Your task to perform on an android device: Show me productivity apps on the Play Store Image 0: 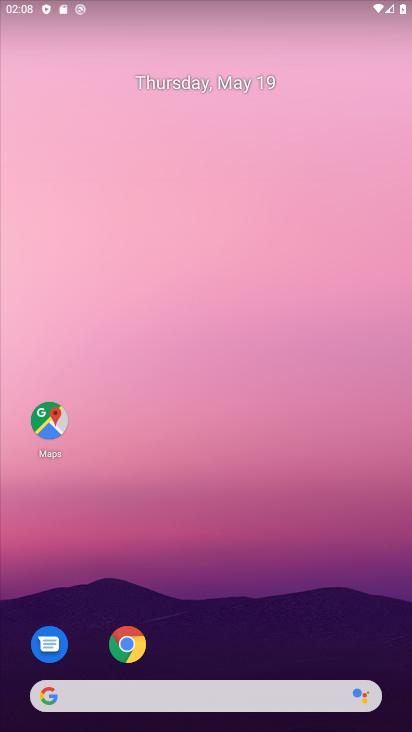
Step 0: click (263, 292)
Your task to perform on an android device: Show me productivity apps on the Play Store Image 1: 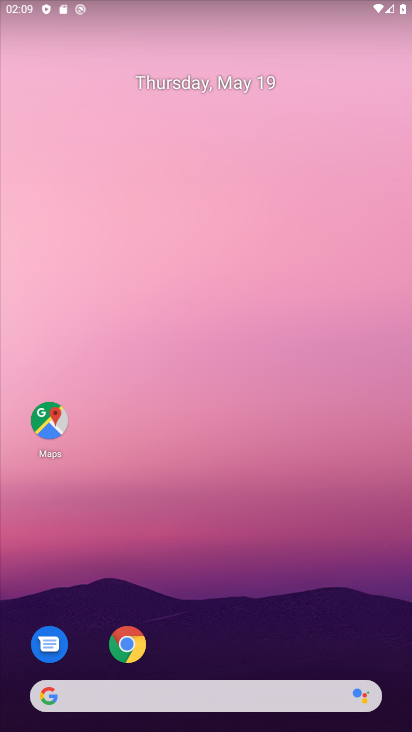
Step 1: drag from (254, 636) to (260, 291)
Your task to perform on an android device: Show me productivity apps on the Play Store Image 2: 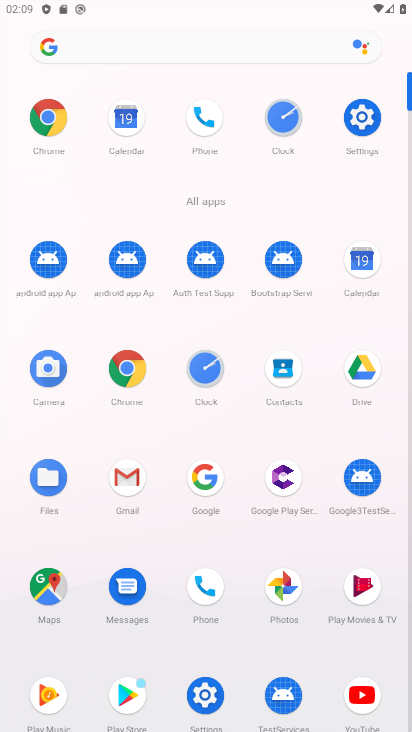
Step 2: drag from (222, 563) to (217, 332)
Your task to perform on an android device: Show me productivity apps on the Play Store Image 3: 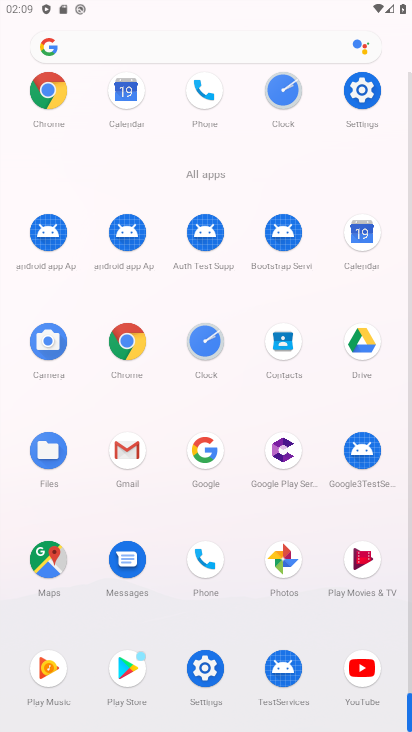
Step 3: click (133, 652)
Your task to perform on an android device: Show me productivity apps on the Play Store Image 4: 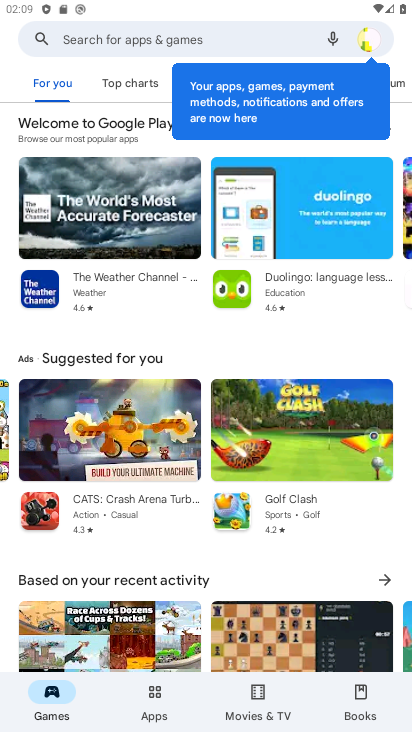
Step 4: click (145, 695)
Your task to perform on an android device: Show me productivity apps on the Play Store Image 5: 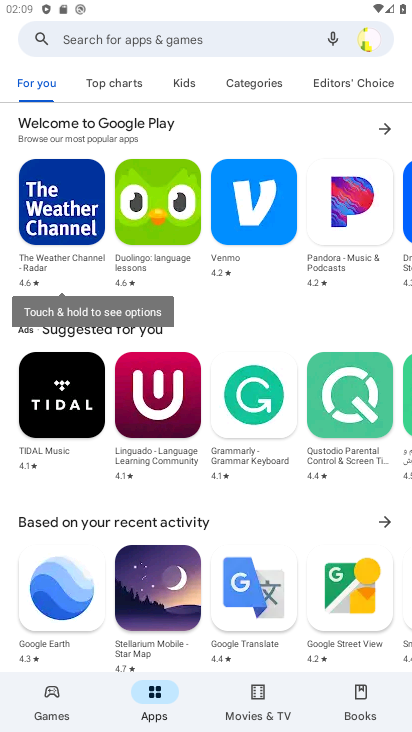
Step 5: task complete